Your task to perform on an android device: Open the Play Movies app and select the watchlist tab. Image 0: 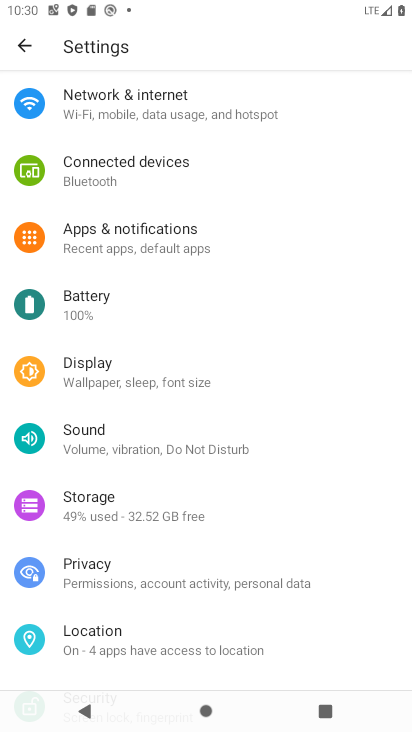
Step 0: press home button
Your task to perform on an android device: Open the Play Movies app and select the watchlist tab. Image 1: 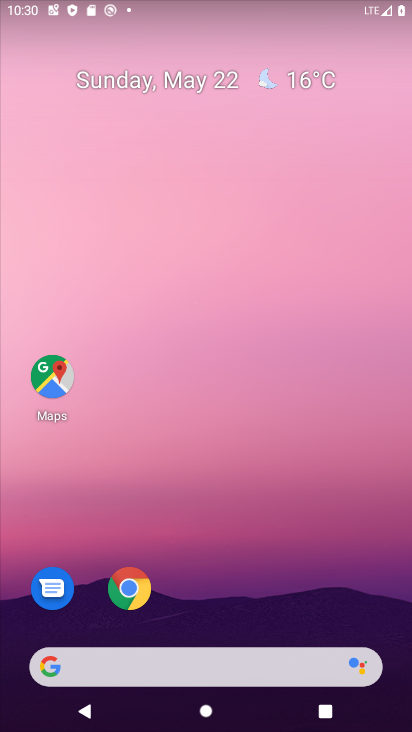
Step 1: drag from (241, 609) to (243, 261)
Your task to perform on an android device: Open the Play Movies app and select the watchlist tab. Image 2: 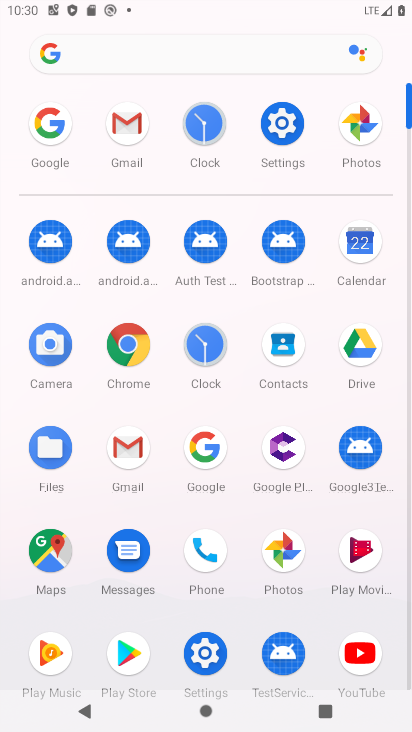
Step 2: click (359, 560)
Your task to perform on an android device: Open the Play Movies app and select the watchlist tab. Image 3: 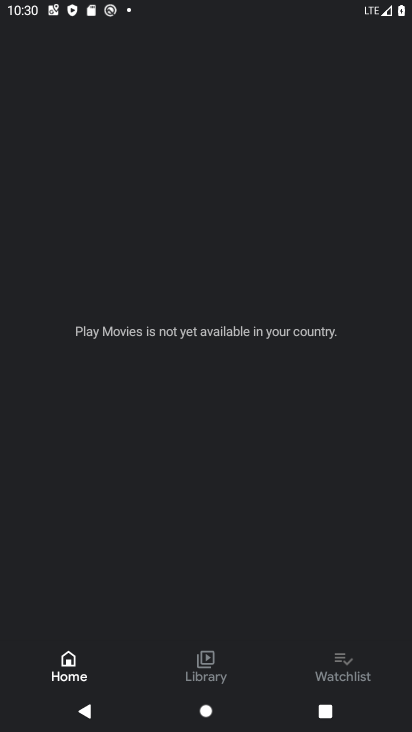
Step 3: click (347, 656)
Your task to perform on an android device: Open the Play Movies app and select the watchlist tab. Image 4: 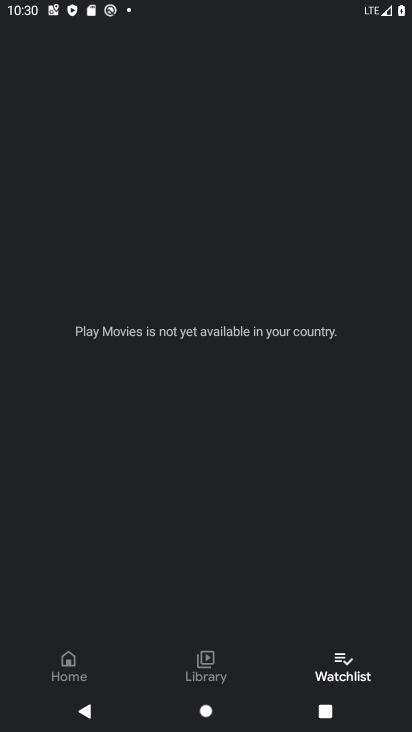
Step 4: task complete